Your task to perform on an android device: Go to network settings Image 0: 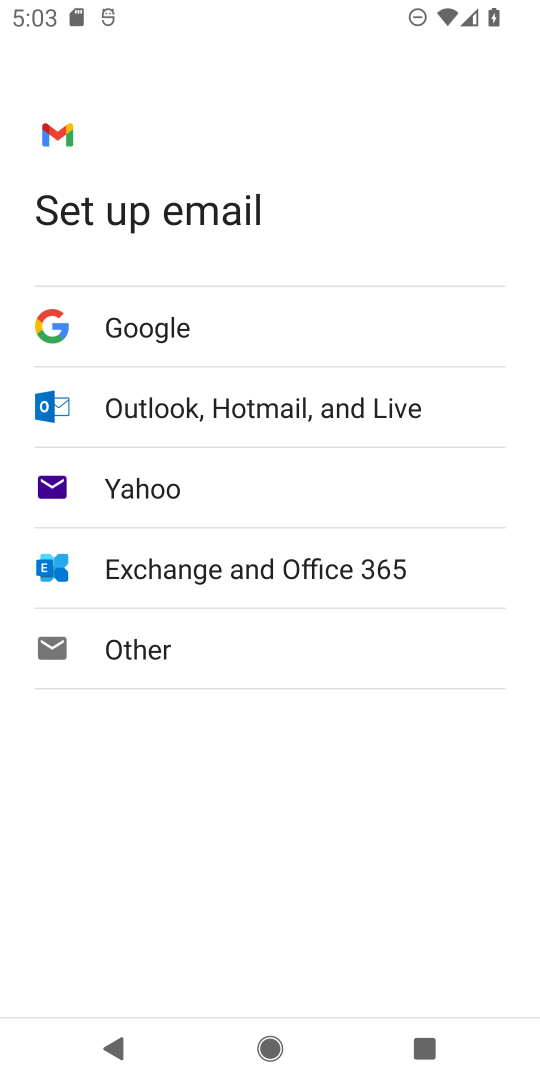
Step 0: press home button
Your task to perform on an android device: Go to network settings Image 1: 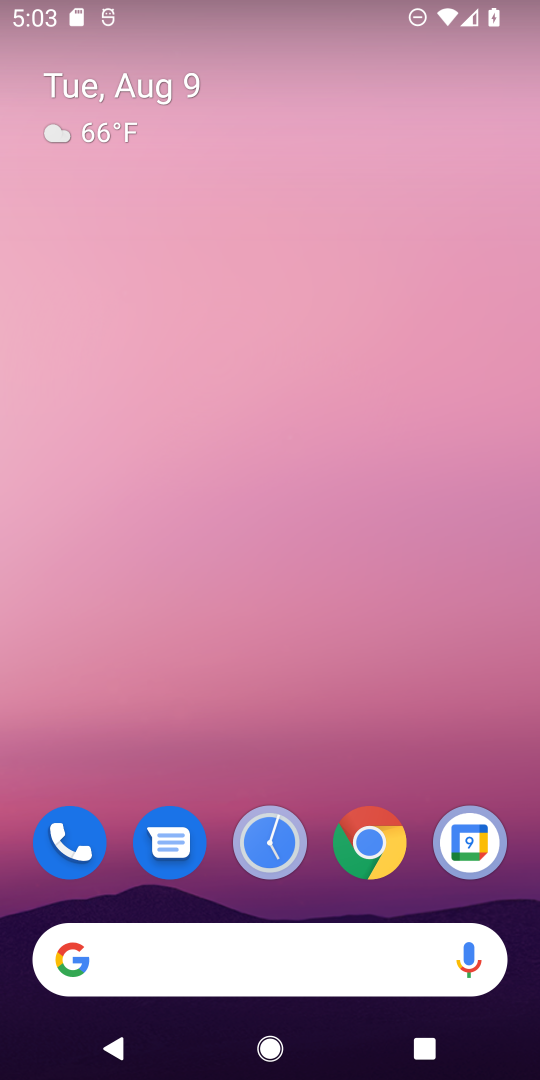
Step 1: drag from (248, 941) to (198, 154)
Your task to perform on an android device: Go to network settings Image 2: 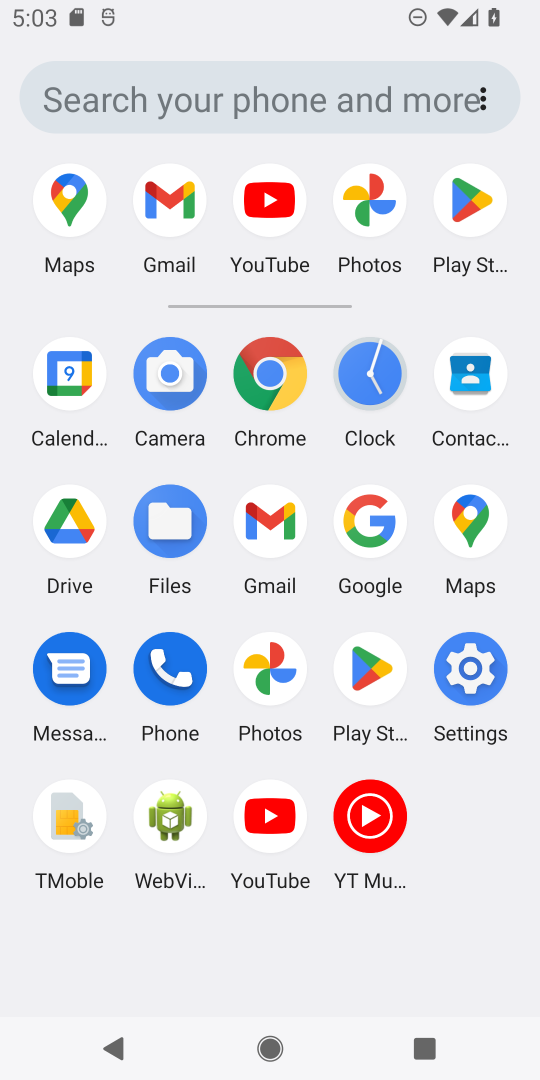
Step 2: click (467, 641)
Your task to perform on an android device: Go to network settings Image 3: 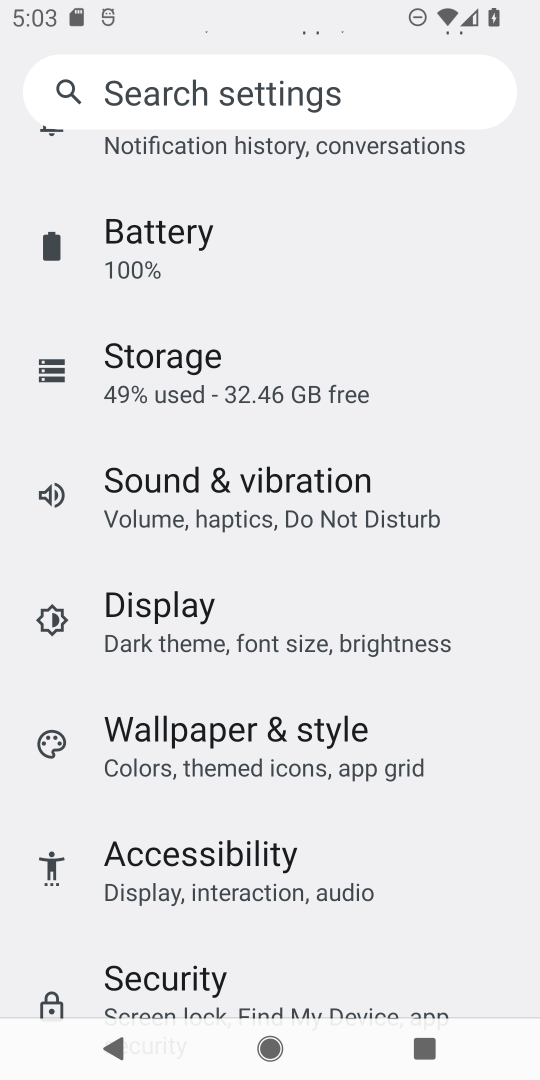
Step 3: drag from (523, 318) to (505, 510)
Your task to perform on an android device: Go to network settings Image 4: 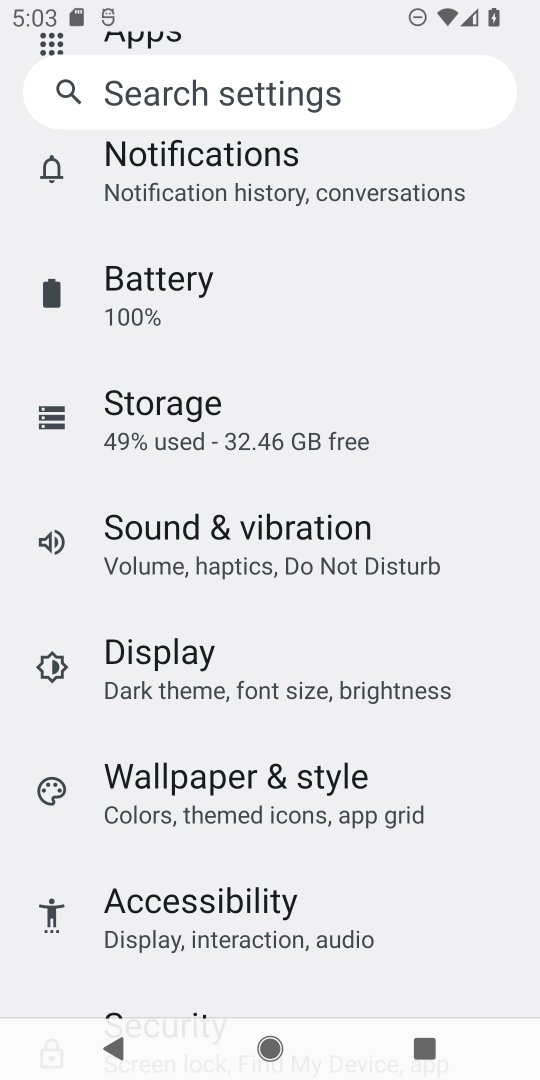
Step 4: drag from (479, 367) to (388, 875)
Your task to perform on an android device: Go to network settings Image 5: 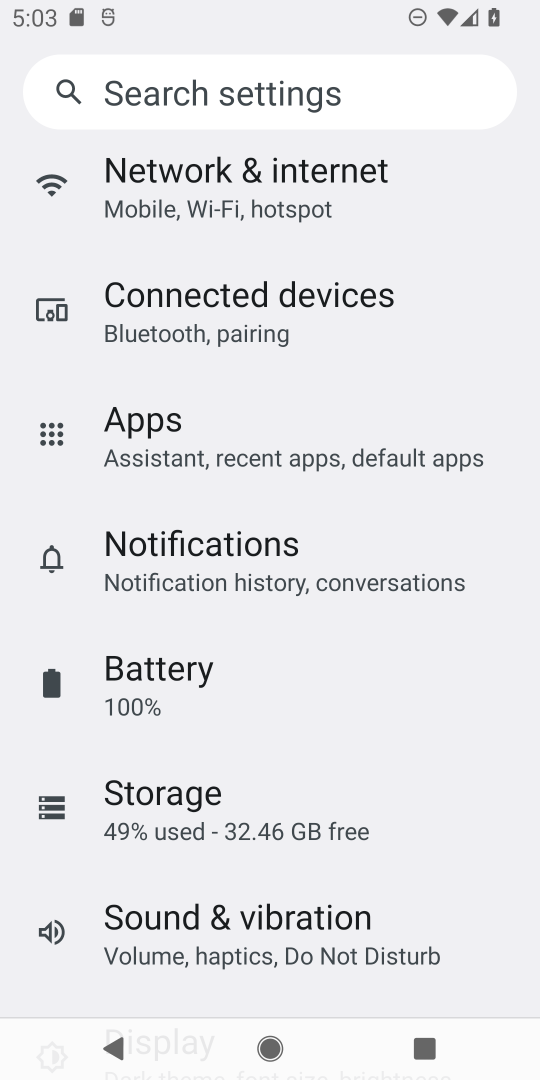
Step 5: click (274, 208)
Your task to perform on an android device: Go to network settings Image 6: 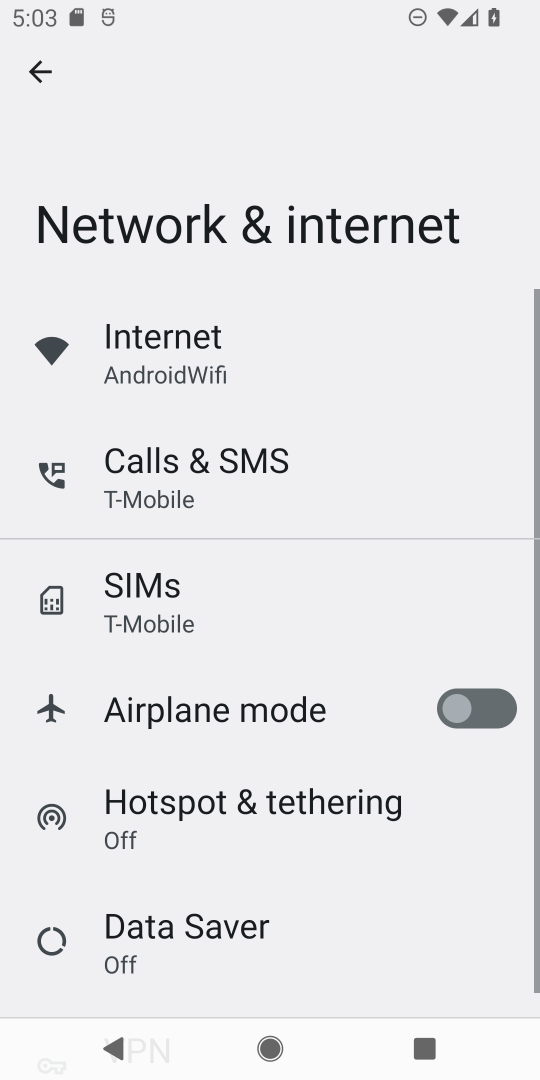
Step 6: task complete